Your task to perform on an android device: Go to privacy settings Image 0: 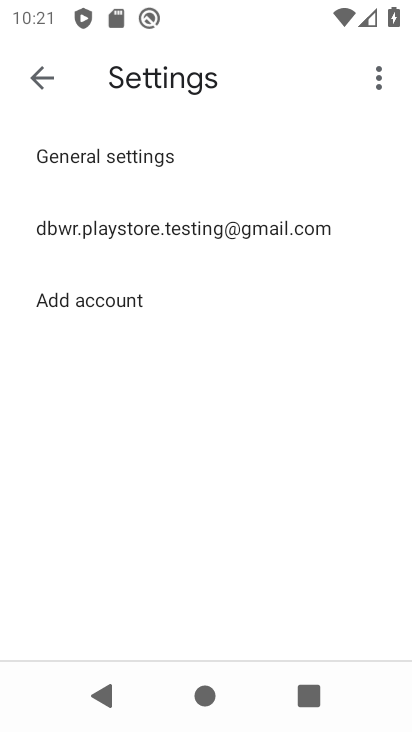
Step 0: press back button
Your task to perform on an android device: Go to privacy settings Image 1: 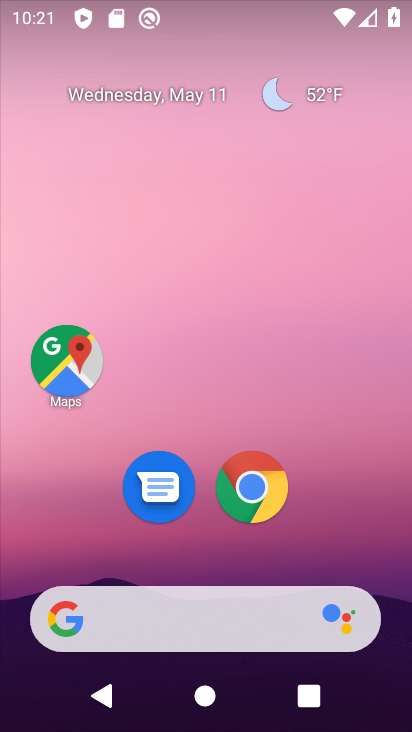
Step 1: click (253, 484)
Your task to perform on an android device: Go to privacy settings Image 2: 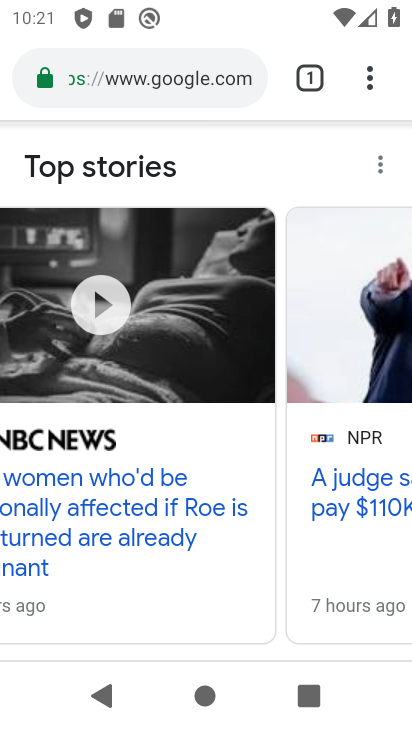
Step 2: drag from (367, 73) to (139, 542)
Your task to perform on an android device: Go to privacy settings Image 3: 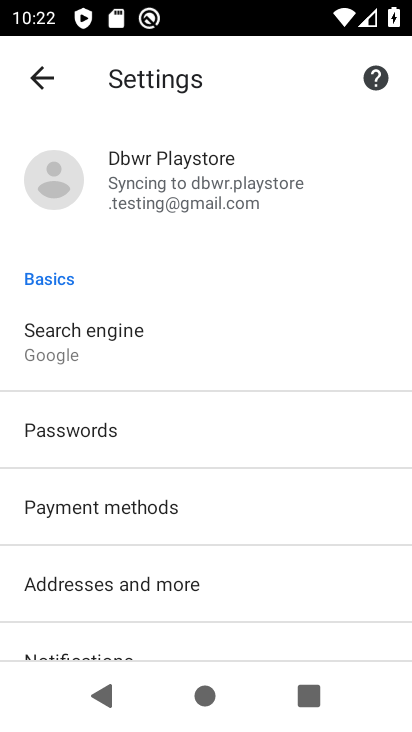
Step 3: drag from (217, 534) to (267, 167)
Your task to perform on an android device: Go to privacy settings Image 4: 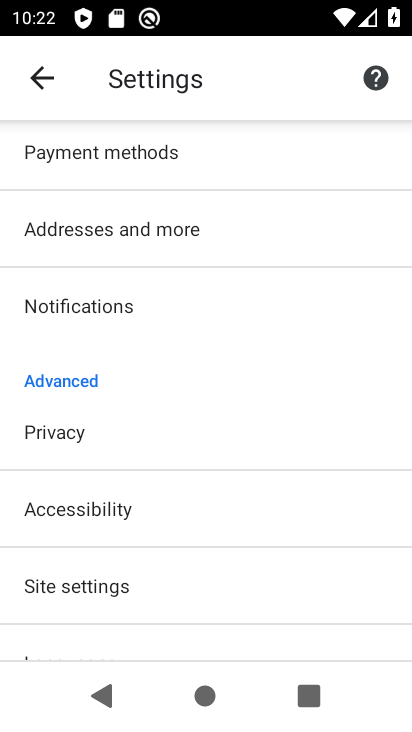
Step 4: click (106, 440)
Your task to perform on an android device: Go to privacy settings Image 5: 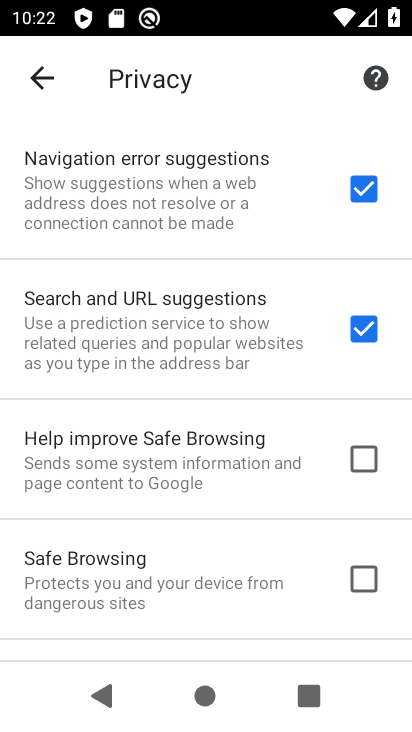
Step 5: task complete